Your task to perform on an android device: turn on airplane mode Image 0: 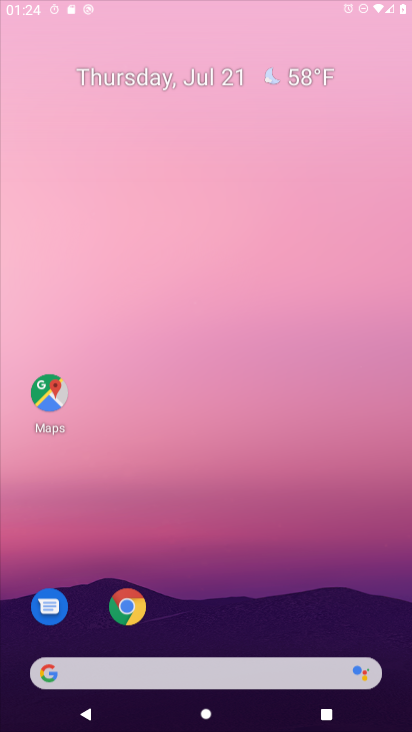
Step 0: press home button
Your task to perform on an android device: turn on airplane mode Image 1: 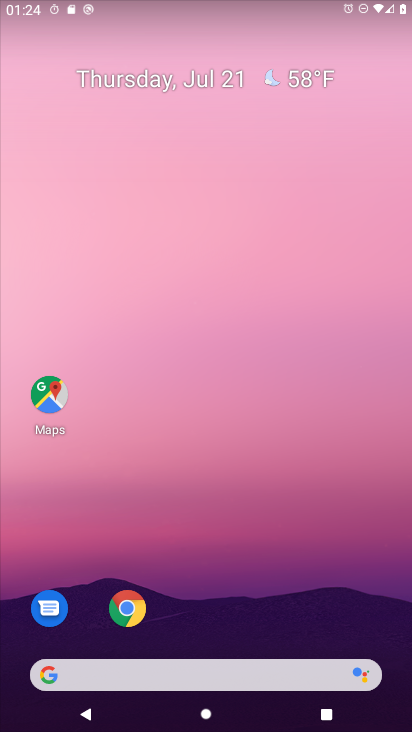
Step 1: drag from (283, 100) to (295, 552)
Your task to perform on an android device: turn on airplane mode Image 2: 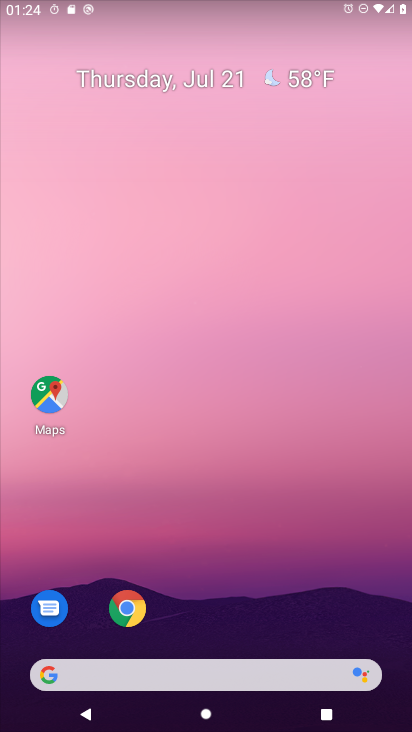
Step 2: drag from (212, 235) to (282, 601)
Your task to perform on an android device: turn on airplane mode Image 3: 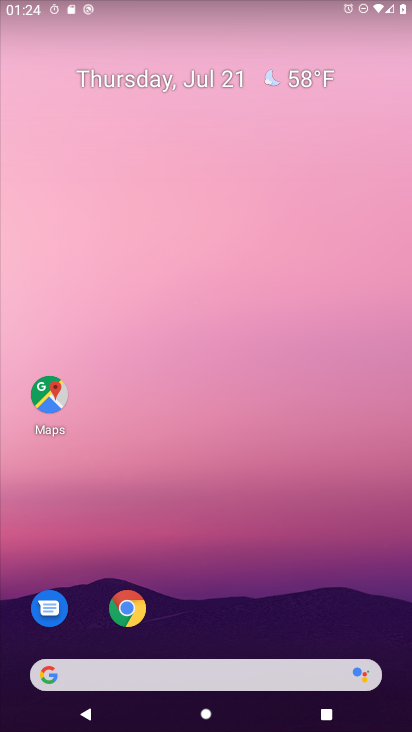
Step 3: drag from (229, 101) to (342, 710)
Your task to perform on an android device: turn on airplane mode Image 4: 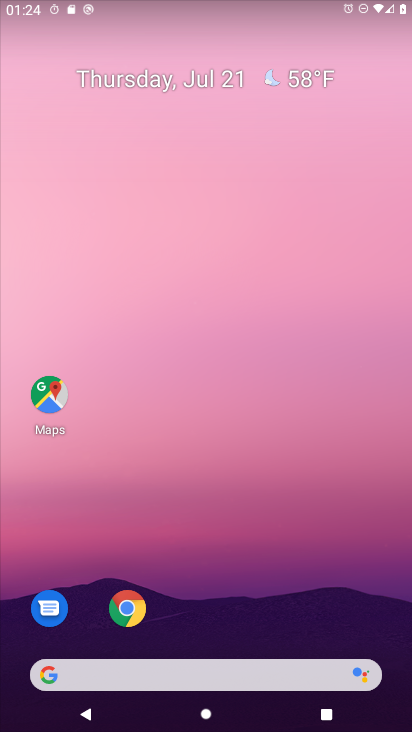
Step 4: drag from (209, 0) to (286, 727)
Your task to perform on an android device: turn on airplane mode Image 5: 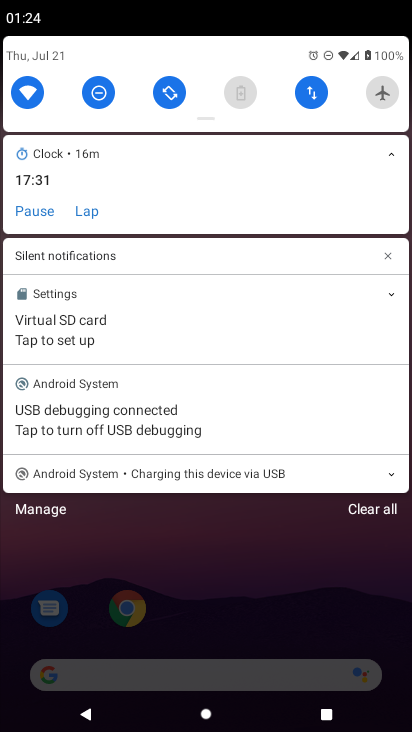
Step 5: click (381, 89)
Your task to perform on an android device: turn on airplane mode Image 6: 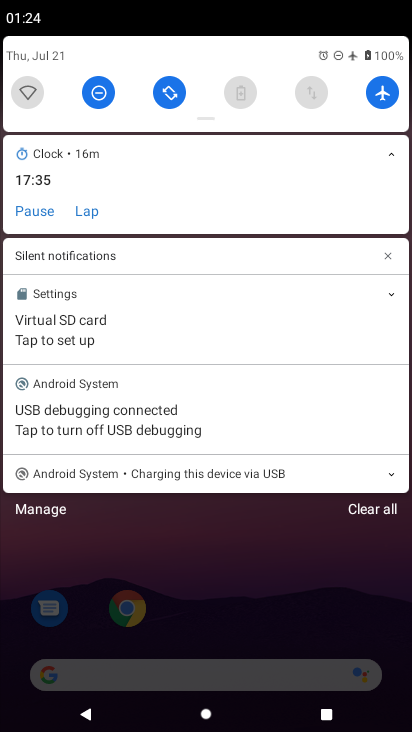
Step 6: task complete